Your task to perform on an android device: change alarm snooze length Image 0: 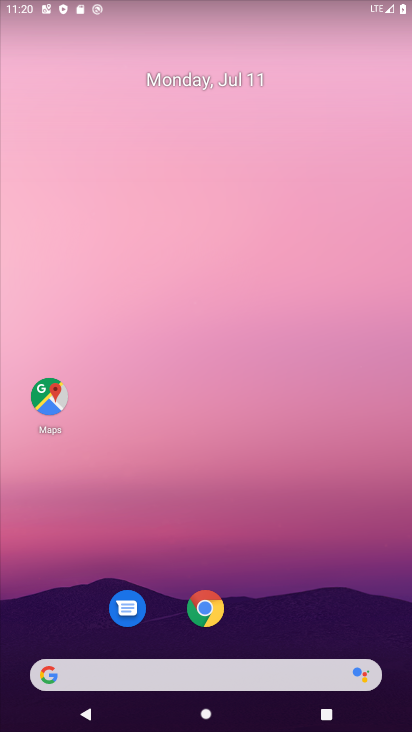
Step 0: drag from (55, 663) to (264, 116)
Your task to perform on an android device: change alarm snooze length Image 1: 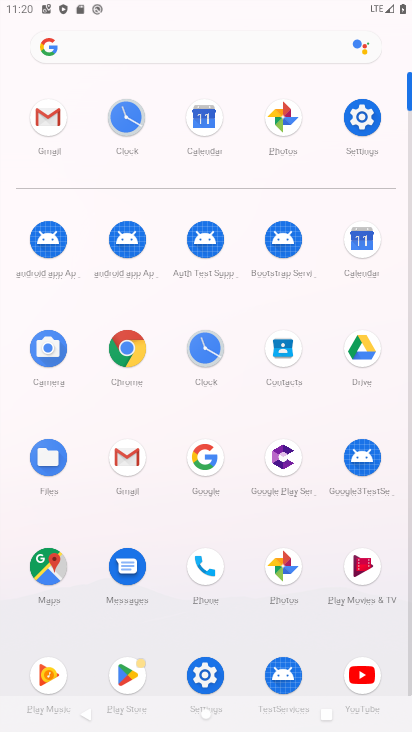
Step 1: click (195, 355)
Your task to perform on an android device: change alarm snooze length Image 2: 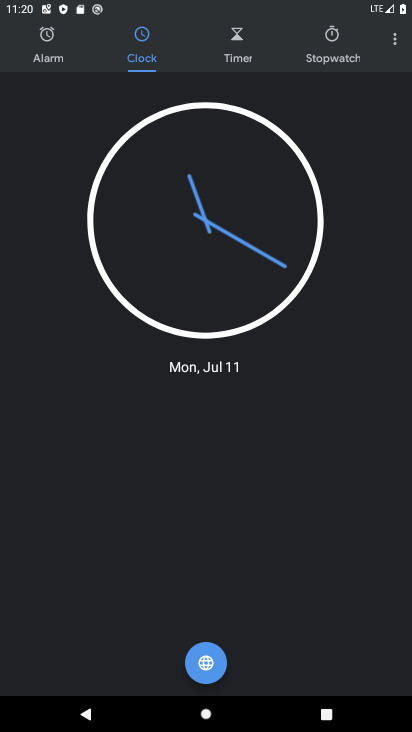
Step 2: click (48, 47)
Your task to perform on an android device: change alarm snooze length Image 3: 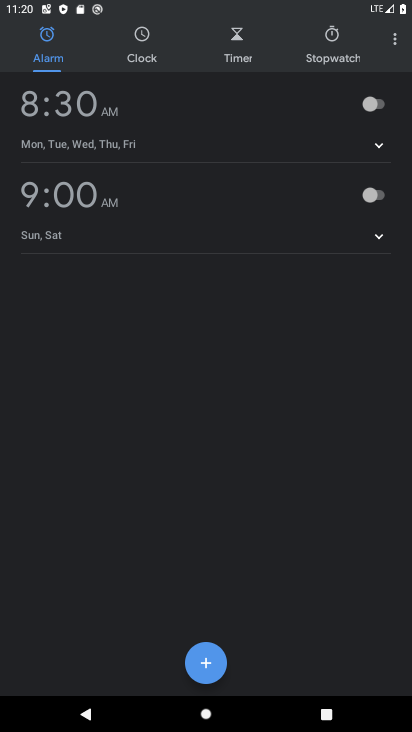
Step 3: click (387, 37)
Your task to perform on an android device: change alarm snooze length Image 4: 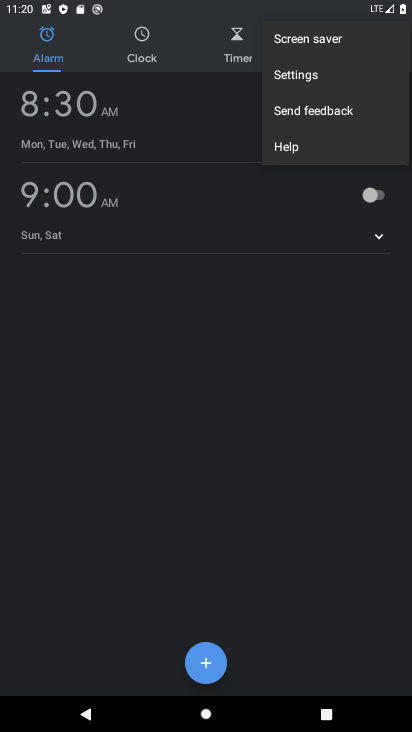
Step 4: click (293, 77)
Your task to perform on an android device: change alarm snooze length Image 5: 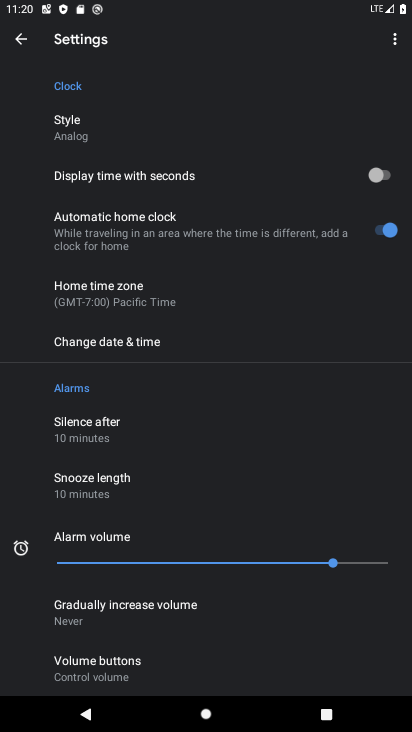
Step 5: click (77, 484)
Your task to perform on an android device: change alarm snooze length Image 6: 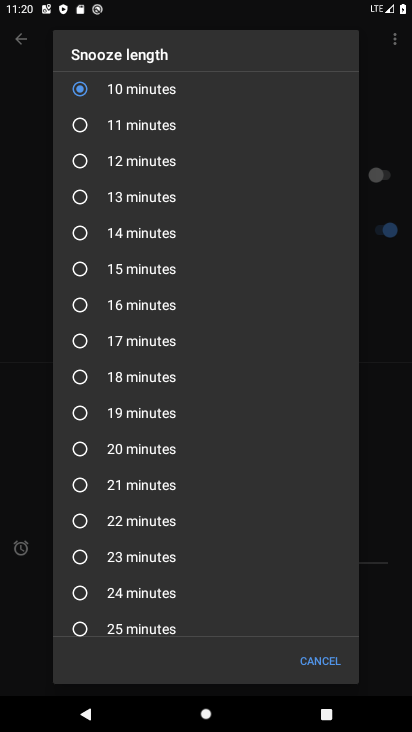
Step 6: click (144, 125)
Your task to perform on an android device: change alarm snooze length Image 7: 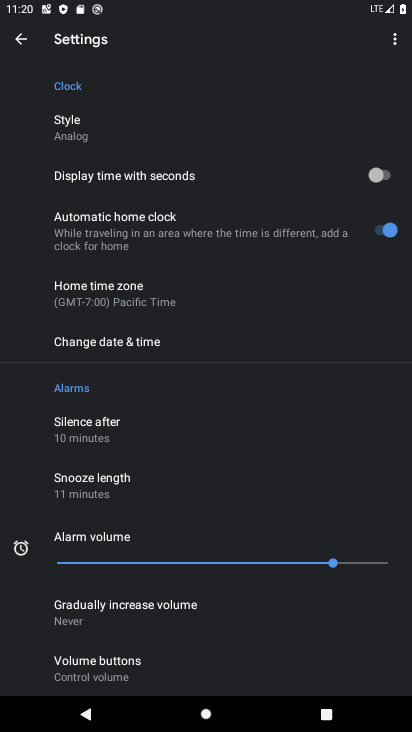
Step 7: task complete